Your task to perform on an android device: open wifi settings Image 0: 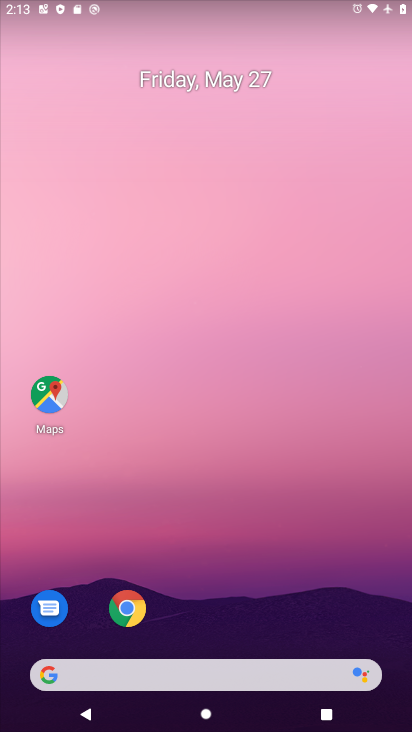
Step 0: press home button
Your task to perform on an android device: open wifi settings Image 1: 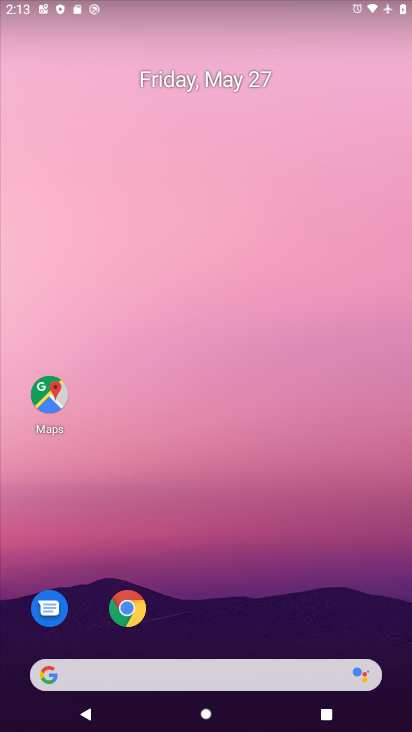
Step 1: drag from (161, 676) to (310, 113)
Your task to perform on an android device: open wifi settings Image 2: 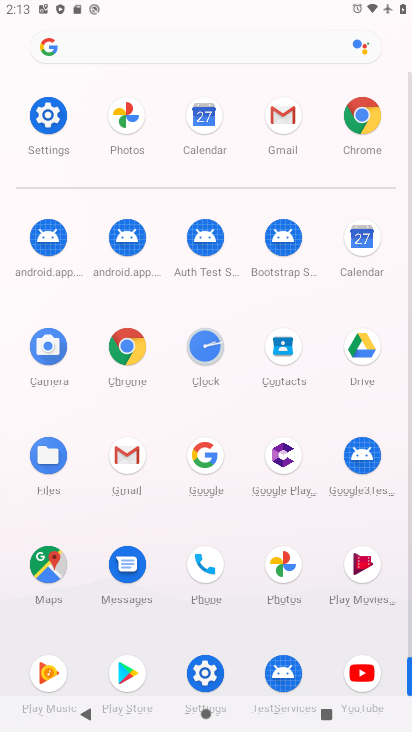
Step 2: click (45, 120)
Your task to perform on an android device: open wifi settings Image 3: 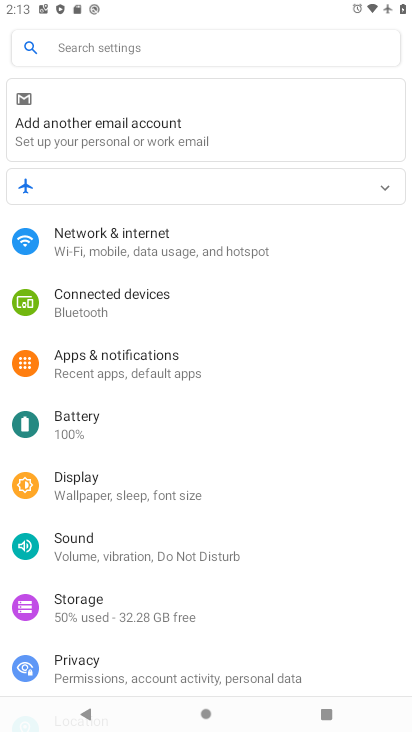
Step 3: click (137, 242)
Your task to perform on an android device: open wifi settings Image 4: 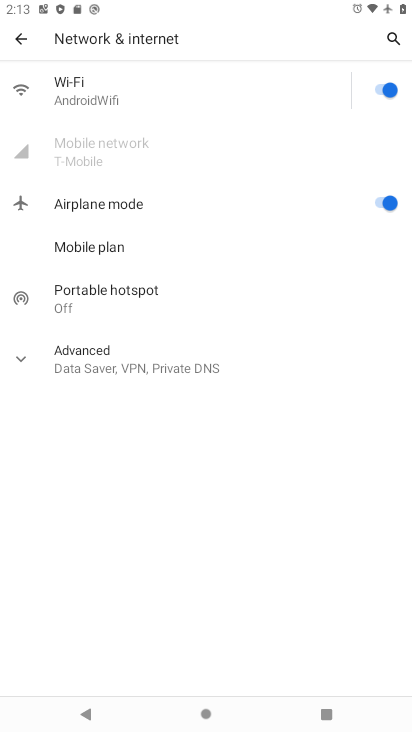
Step 4: click (93, 92)
Your task to perform on an android device: open wifi settings Image 5: 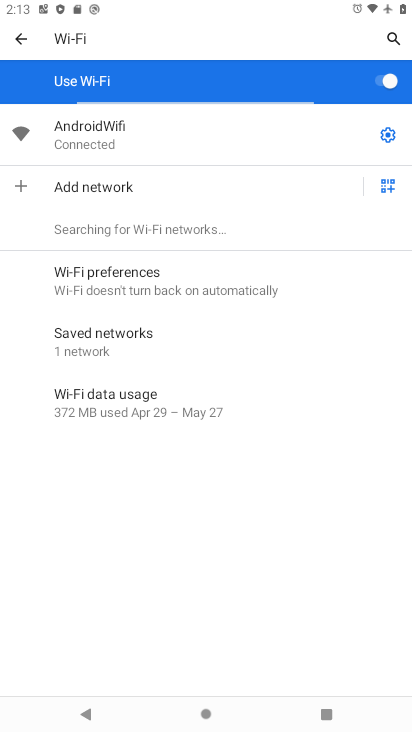
Step 5: task complete